Your task to perform on an android device: turn on location history Image 0: 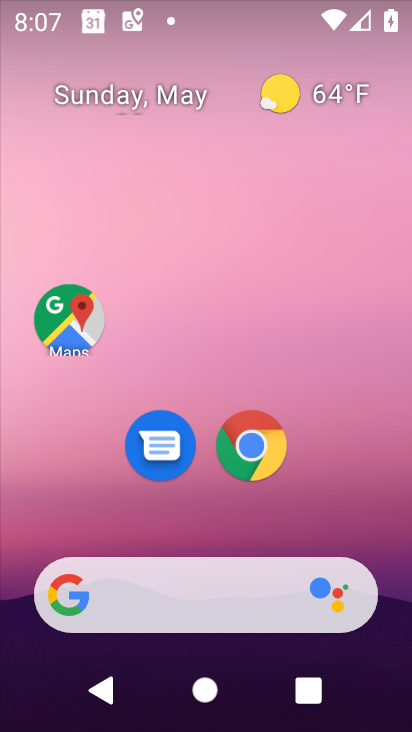
Step 0: drag from (186, 489) to (210, 120)
Your task to perform on an android device: turn on location history Image 1: 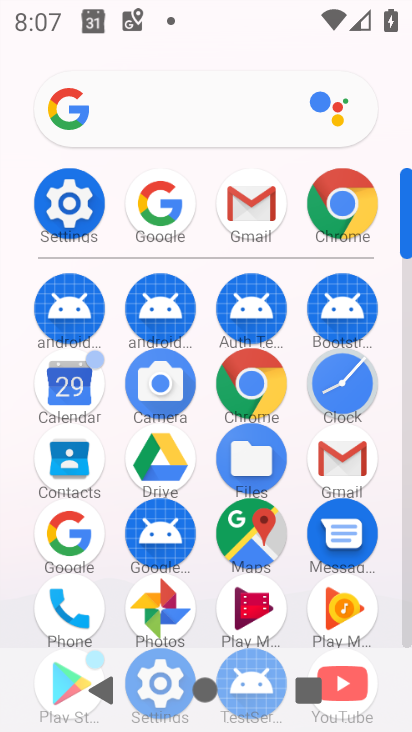
Step 1: click (61, 221)
Your task to perform on an android device: turn on location history Image 2: 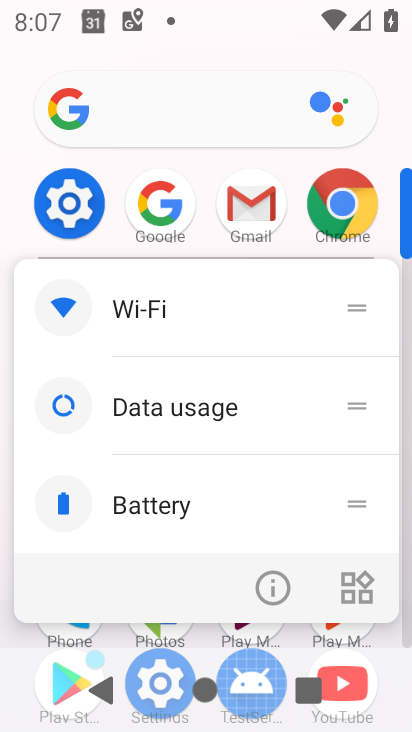
Step 2: click (277, 583)
Your task to perform on an android device: turn on location history Image 3: 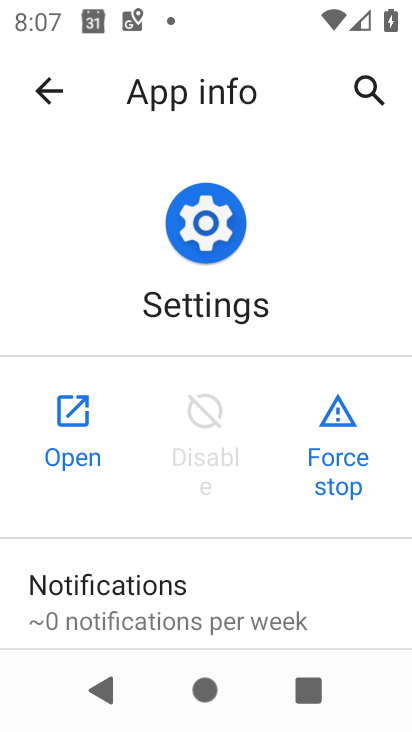
Step 3: click (60, 433)
Your task to perform on an android device: turn on location history Image 4: 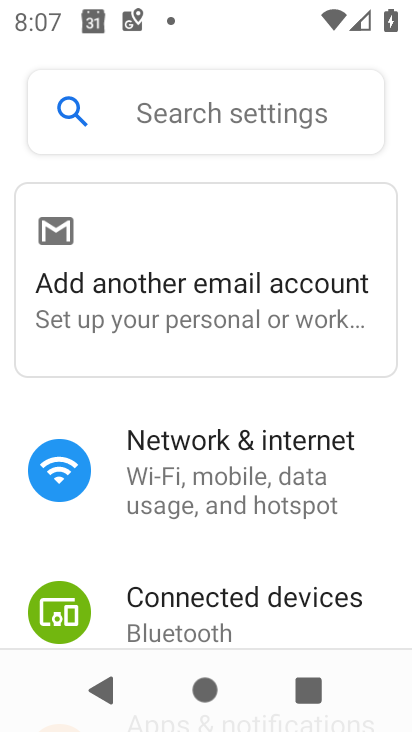
Step 4: drag from (264, 537) to (357, 88)
Your task to perform on an android device: turn on location history Image 5: 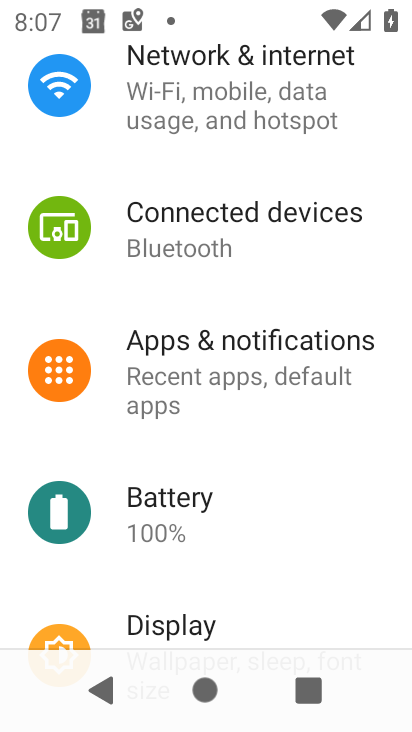
Step 5: drag from (226, 598) to (308, 123)
Your task to perform on an android device: turn on location history Image 6: 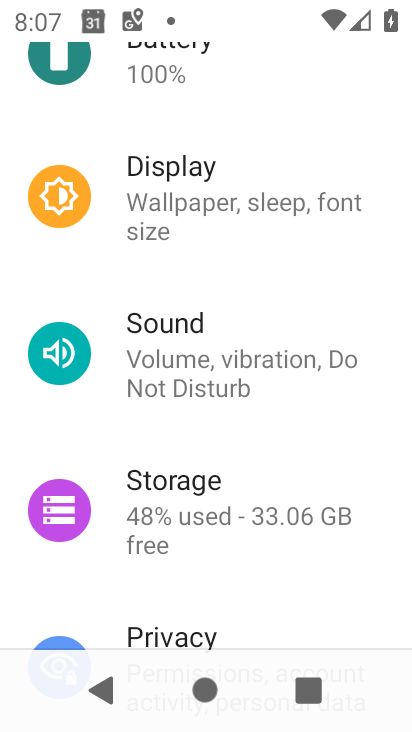
Step 6: drag from (196, 543) to (263, 107)
Your task to perform on an android device: turn on location history Image 7: 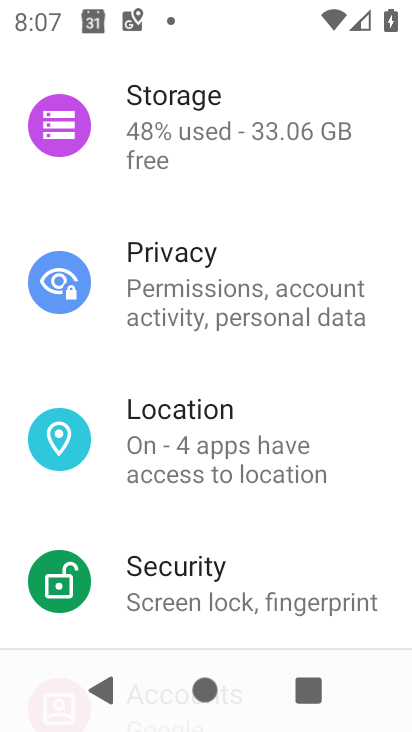
Step 7: click (195, 453)
Your task to perform on an android device: turn on location history Image 8: 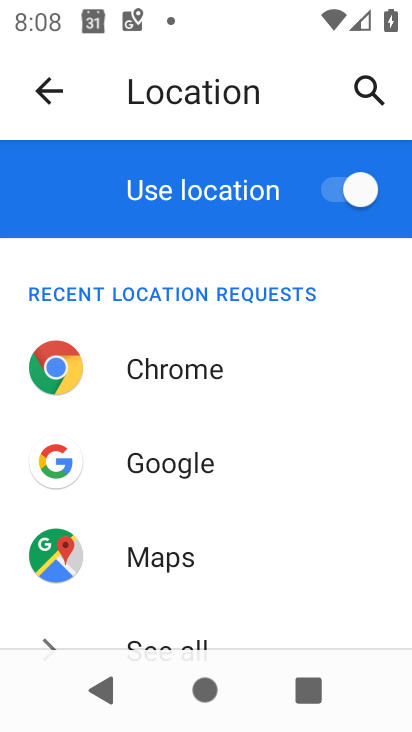
Step 8: task complete